Your task to perform on an android device: delete a single message in the gmail app Image 0: 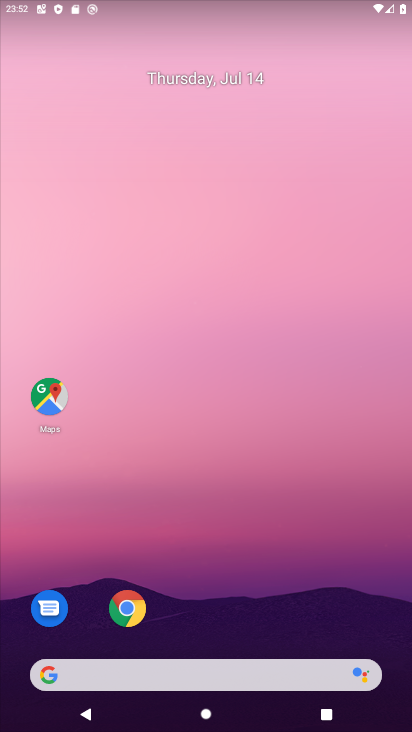
Step 0: drag from (26, 703) to (281, 32)
Your task to perform on an android device: delete a single message in the gmail app Image 1: 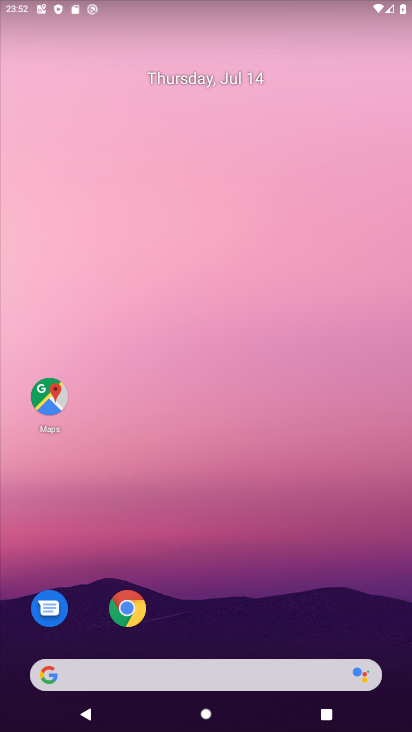
Step 1: task complete